Your task to perform on an android device: Search for pizza restaurants on Maps Image 0: 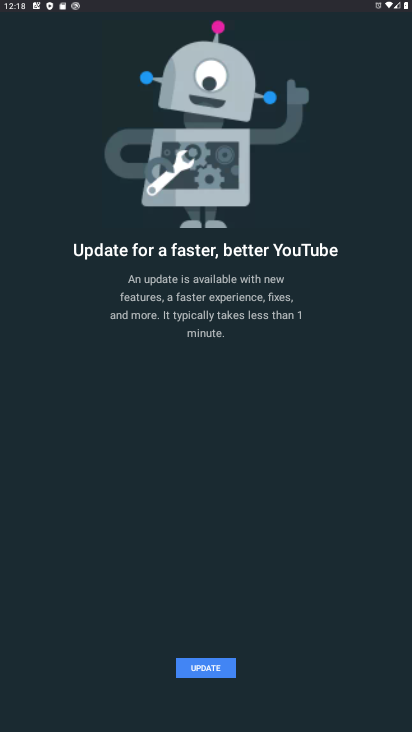
Step 0: press home button
Your task to perform on an android device: Search for pizza restaurants on Maps Image 1: 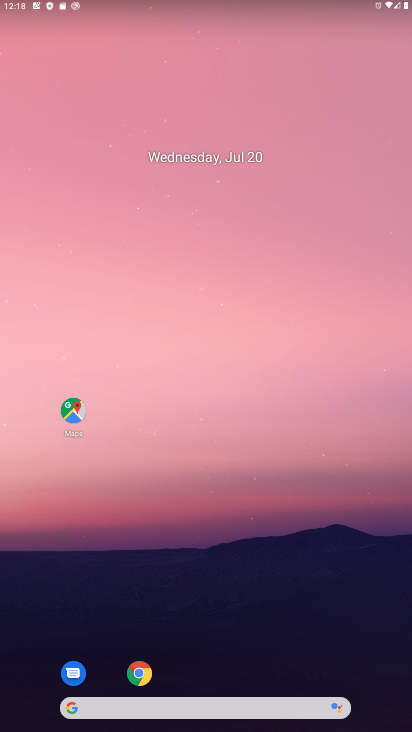
Step 1: click (74, 401)
Your task to perform on an android device: Search for pizza restaurants on Maps Image 2: 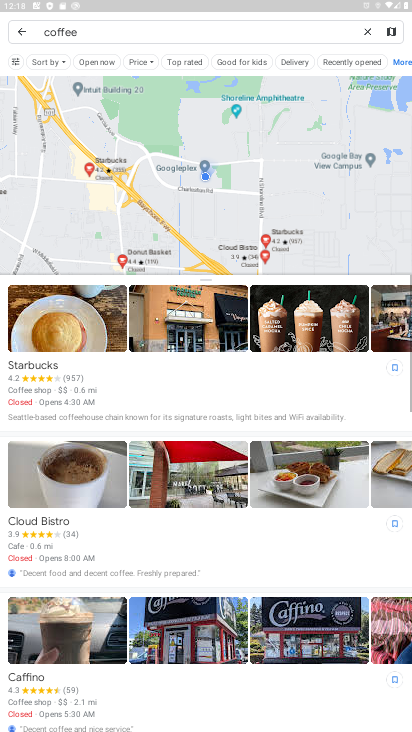
Step 2: click (167, 21)
Your task to perform on an android device: Search for pizza restaurants on Maps Image 3: 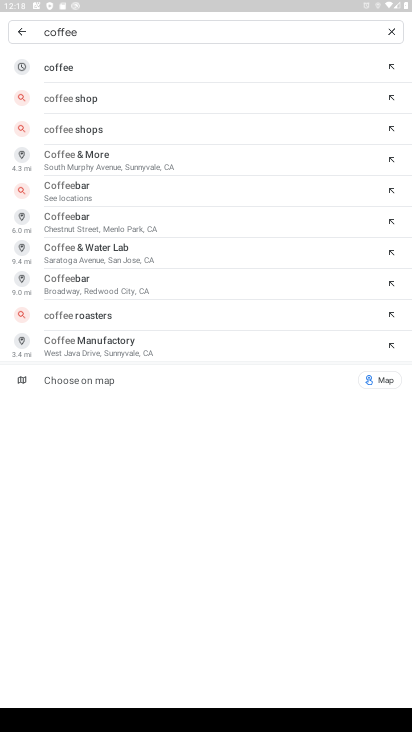
Step 3: click (397, 33)
Your task to perform on an android device: Search for pizza restaurants on Maps Image 4: 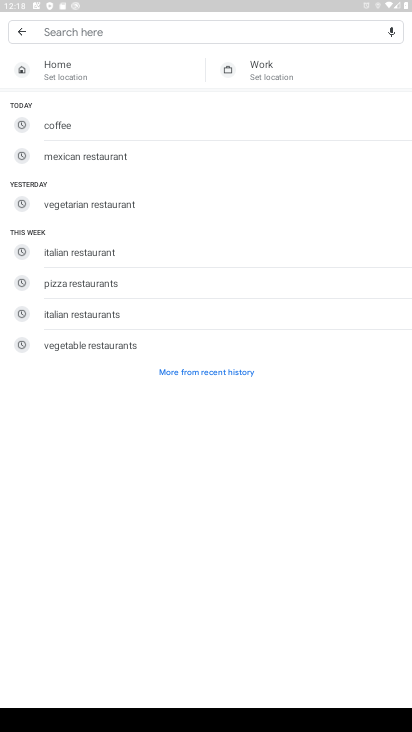
Step 4: click (99, 288)
Your task to perform on an android device: Search for pizza restaurants on Maps Image 5: 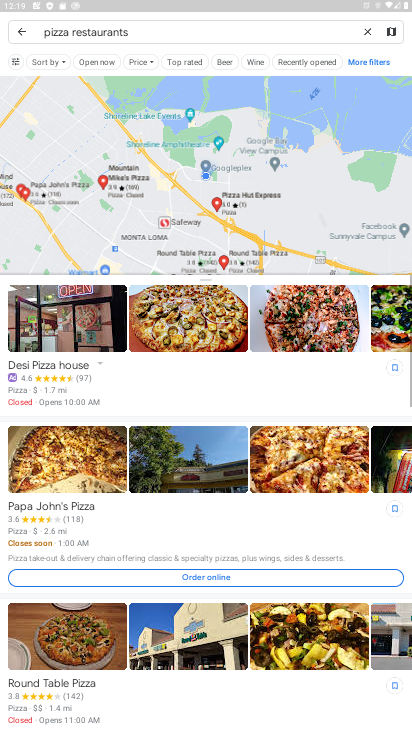
Step 5: task complete